Your task to perform on an android device: toggle show notifications on the lock screen Image 0: 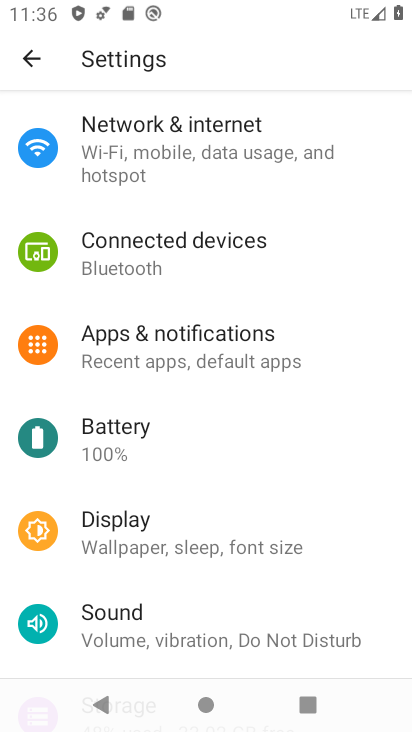
Step 0: click (198, 329)
Your task to perform on an android device: toggle show notifications on the lock screen Image 1: 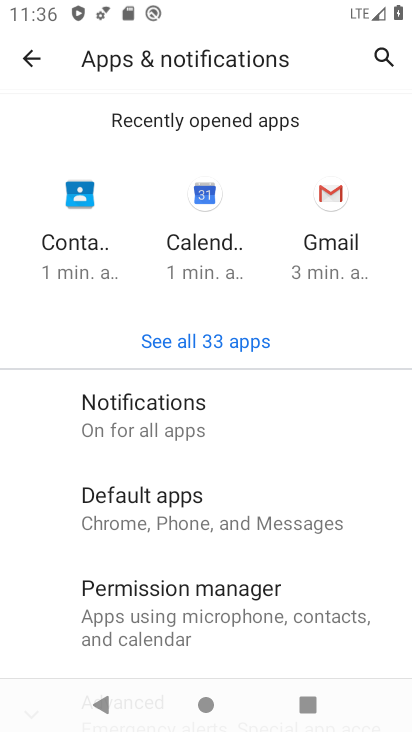
Step 1: click (150, 409)
Your task to perform on an android device: toggle show notifications on the lock screen Image 2: 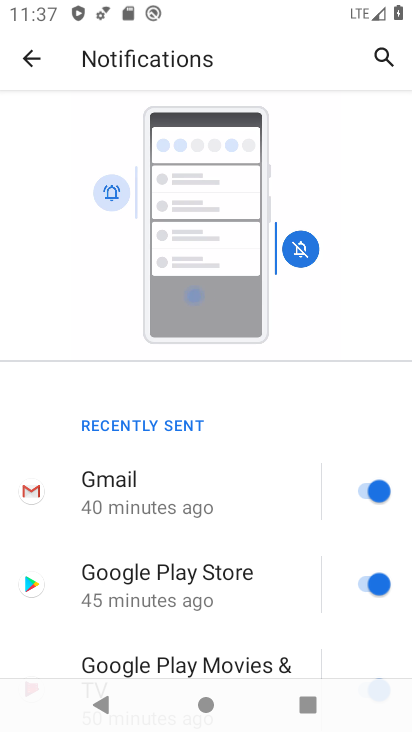
Step 2: drag from (191, 667) to (226, 237)
Your task to perform on an android device: toggle show notifications on the lock screen Image 3: 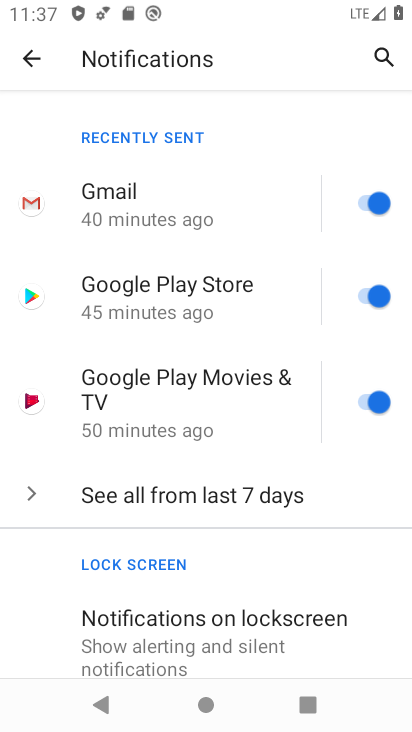
Step 3: drag from (166, 604) to (157, 152)
Your task to perform on an android device: toggle show notifications on the lock screen Image 4: 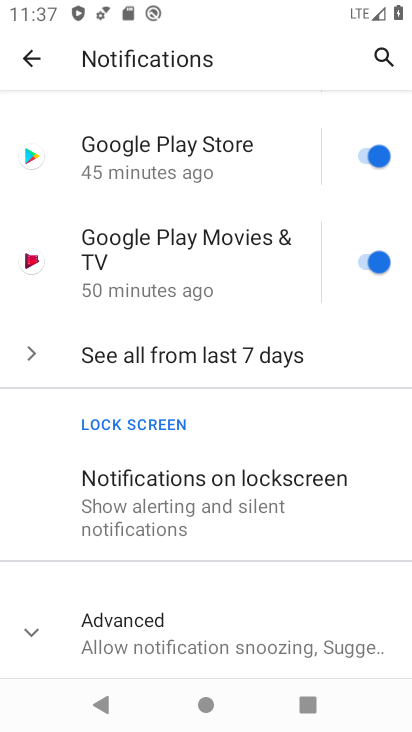
Step 4: click (192, 525)
Your task to perform on an android device: toggle show notifications on the lock screen Image 5: 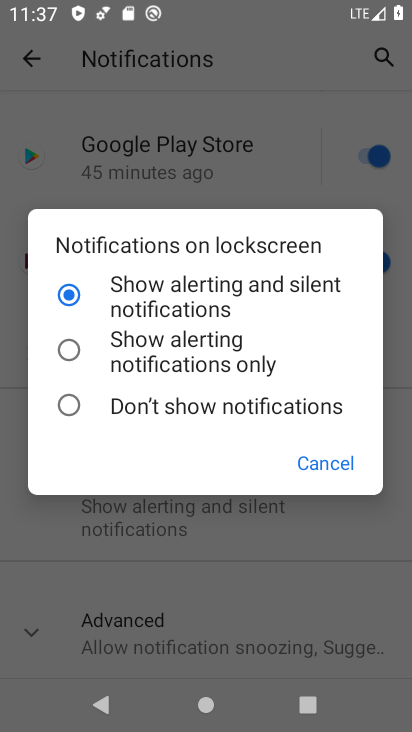
Step 5: click (241, 365)
Your task to perform on an android device: toggle show notifications on the lock screen Image 6: 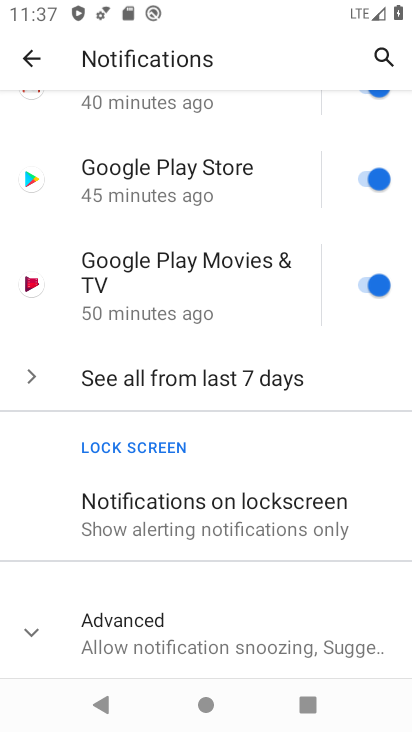
Step 6: task complete